Your task to perform on an android device: Show me popular games on the Play Store Image 0: 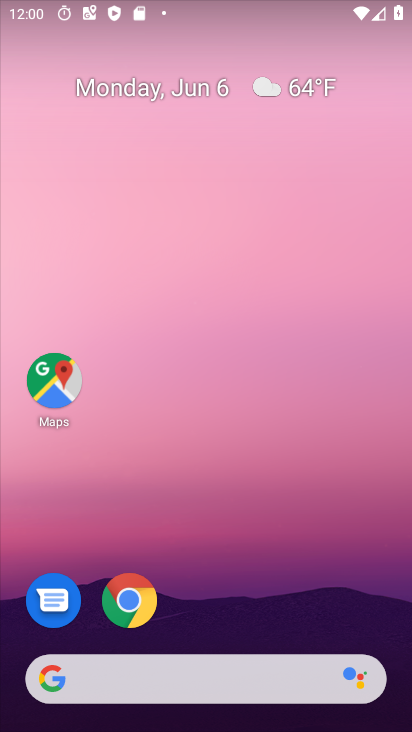
Step 0: drag from (259, 718) to (189, 196)
Your task to perform on an android device: Show me popular games on the Play Store Image 1: 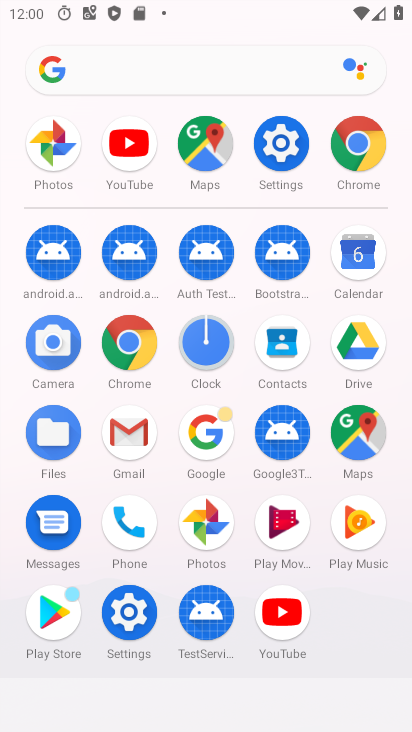
Step 1: click (60, 607)
Your task to perform on an android device: Show me popular games on the Play Store Image 2: 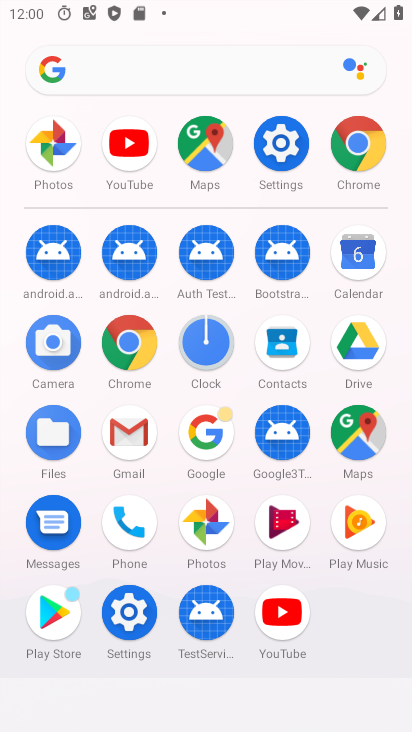
Step 2: click (60, 605)
Your task to perform on an android device: Show me popular games on the Play Store Image 3: 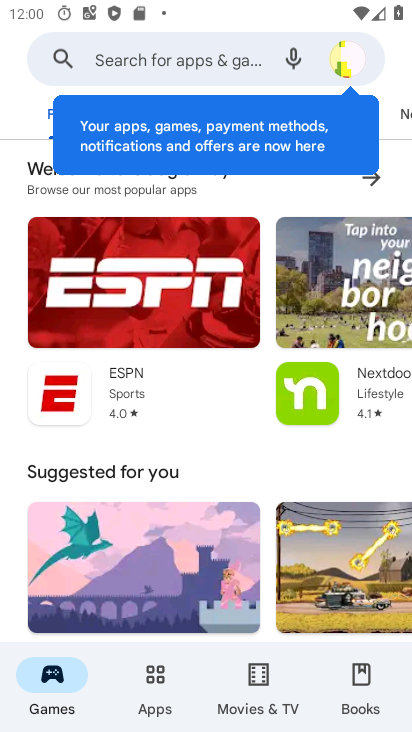
Step 3: press back button
Your task to perform on an android device: Show me popular games on the Play Store Image 4: 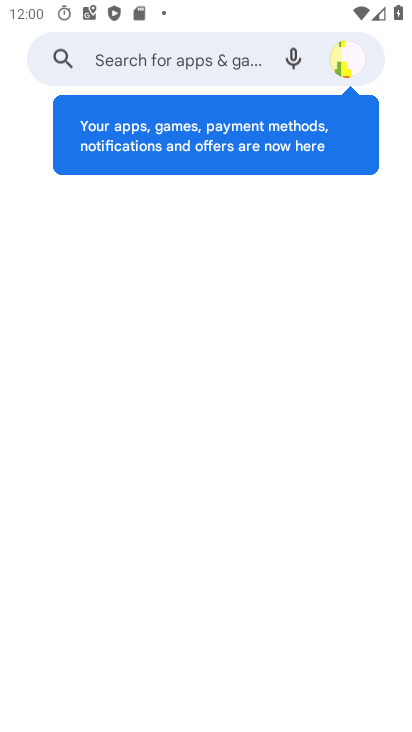
Step 4: press back button
Your task to perform on an android device: Show me popular games on the Play Store Image 5: 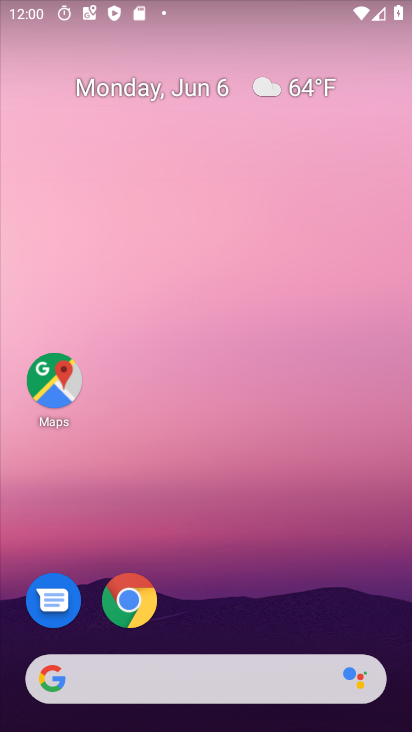
Step 5: drag from (211, 682) to (165, 196)
Your task to perform on an android device: Show me popular games on the Play Store Image 6: 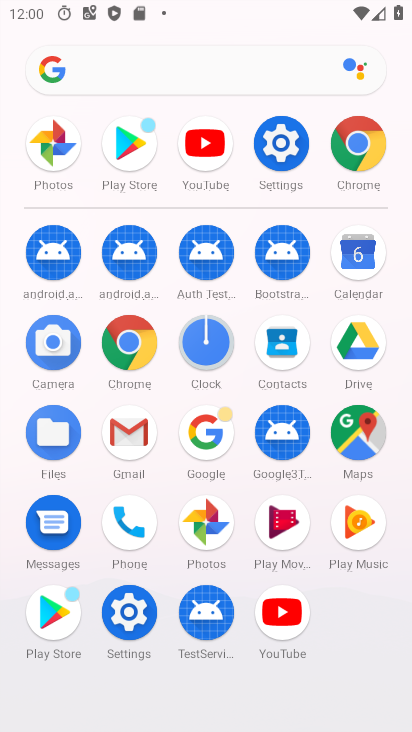
Step 6: click (232, 225)
Your task to perform on an android device: Show me popular games on the Play Store Image 7: 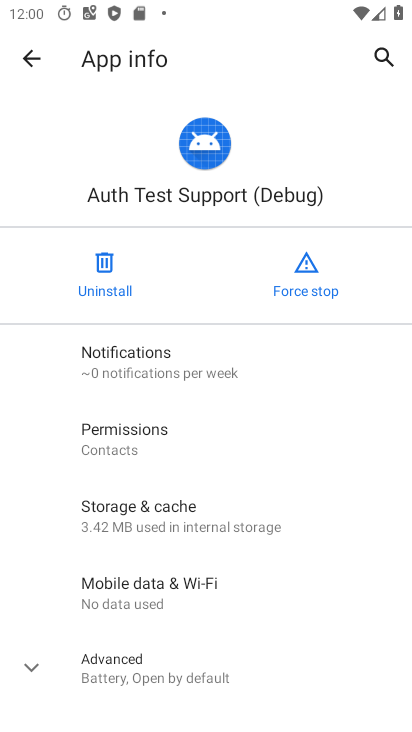
Step 7: click (26, 51)
Your task to perform on an android device: Show me popular games on the Play Store Image 8: 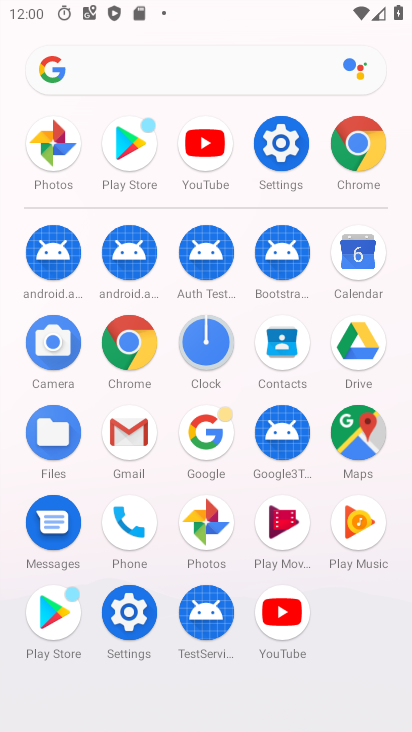
Step 8: click (47, 601)
Your task to perform on an android device: Show me popular games on the Play Store Image 9: 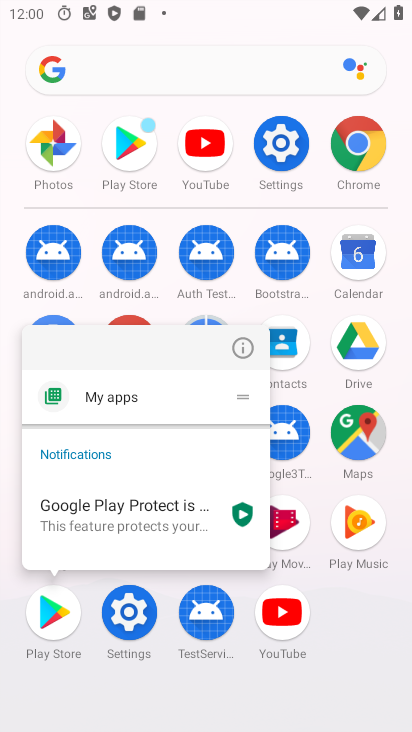
Step 9: click (44, 625)
Your task to perform on an android device: Show me popular games on the Play Store Image 10: 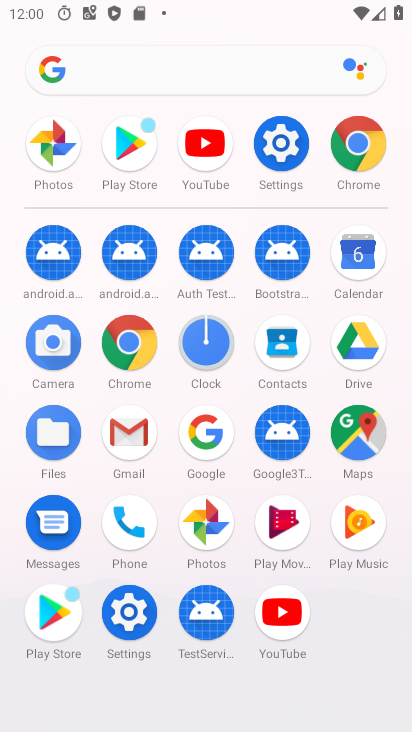
Step 10: click (48, 611)
Your task to perform on an android device: Show me popular games on the Play Store Image 11: 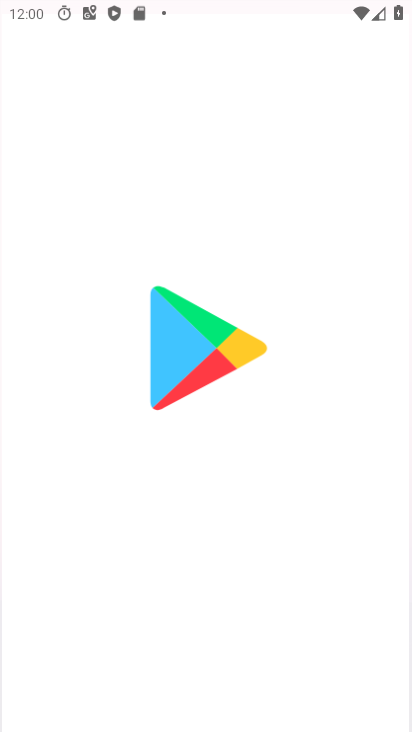
Step 11: click (48, 610)
Your task to perform on an android device: Show me popular games on the Play Store Image 12: 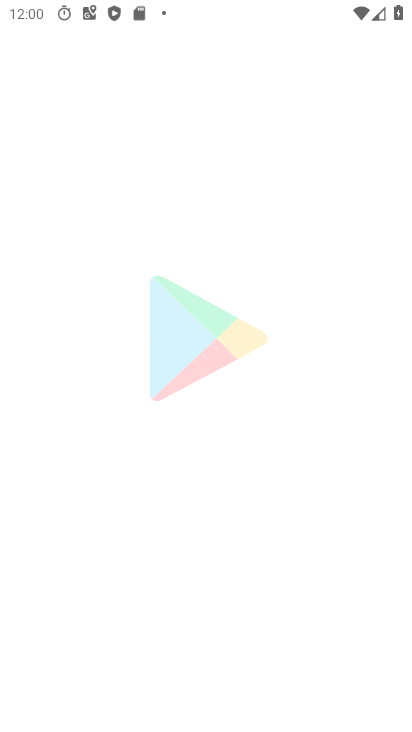
Step 12: click (44, 608)
Your task to perform on an android device: Show me popular games on the Play Store Image 13: 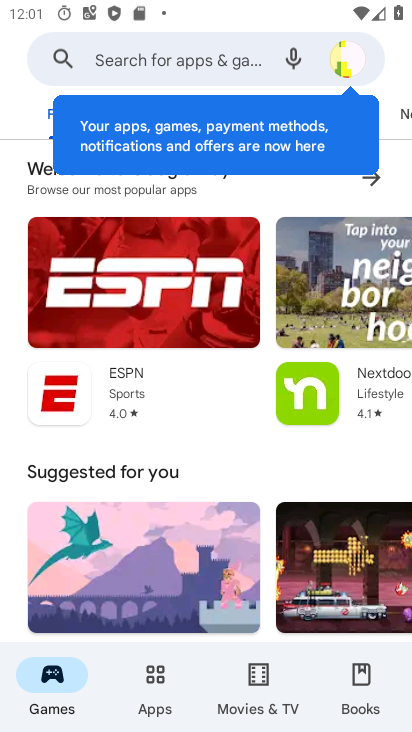
Step 13: click (98, 52)
Your task to perform on an android device: Show me popular games on the Play Store Image 14: 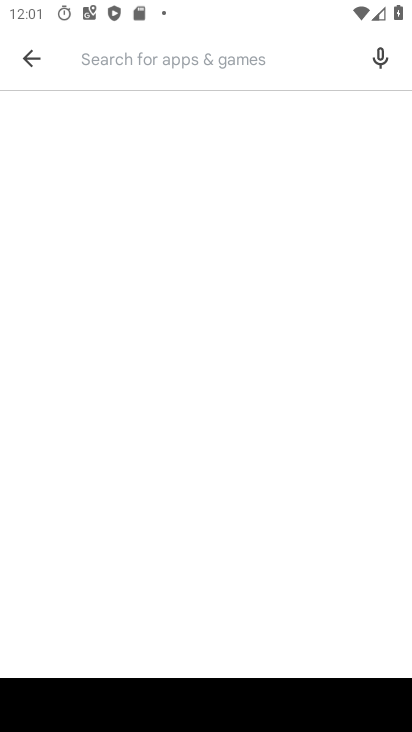
Step 14: type "popular games"
Your task to perform on an android device: Show me popular games on the Play Store Image 15: 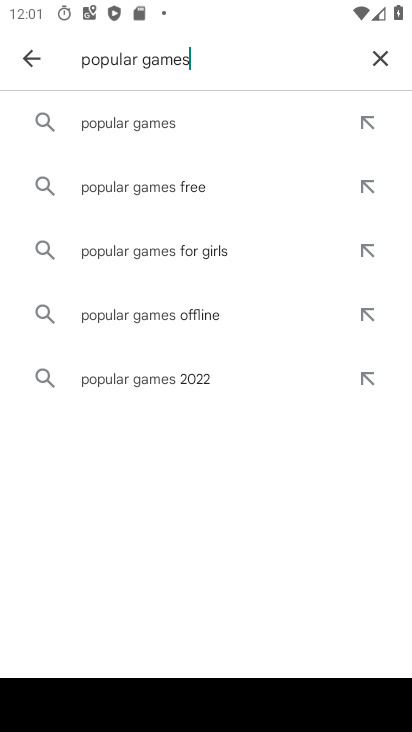
Step 15: click (138, 110)
Your task to perform on an android device: Show me popular games on the Play Store Image 16: 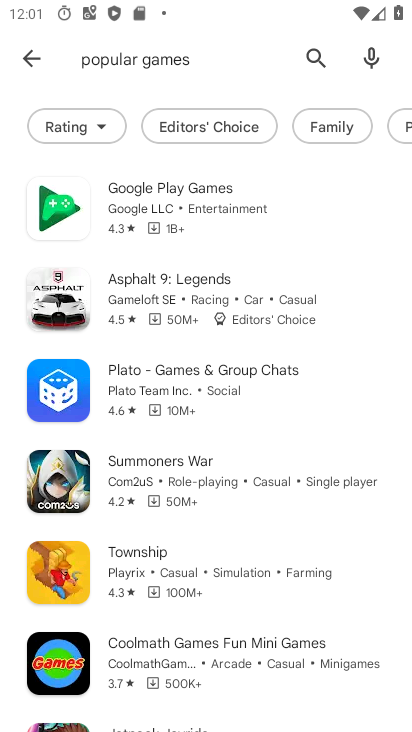
Step 16: drag from (210, 346) to (222, 133)
Your task to perform on an android device: Show me popular games on the Play Store Image 17: 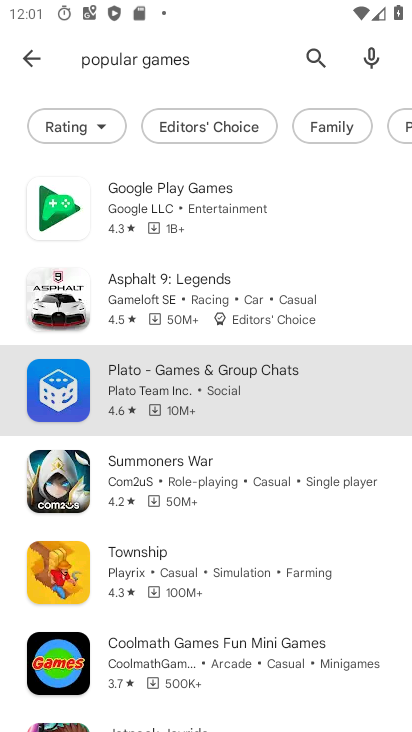
Step 17: drag from (238, 436) to (153, 110)
Your task to perform on an android device: Show me popular games on the Play Store Image 18: 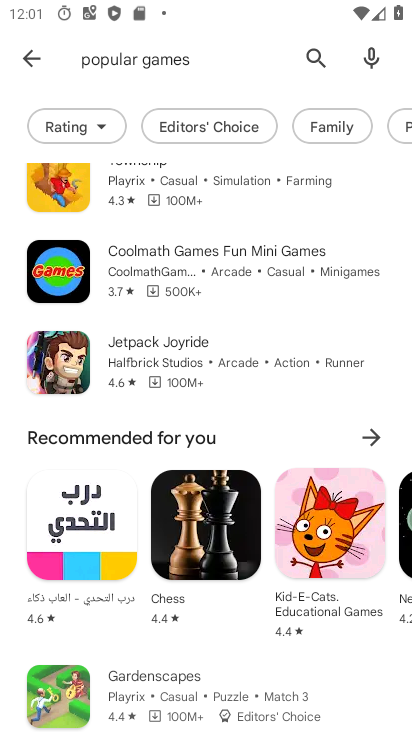
Step 18: drag from (159, 414) to (134, 208)
Your task to perform on an android device: Show me popular games on the Play Store Image 19: 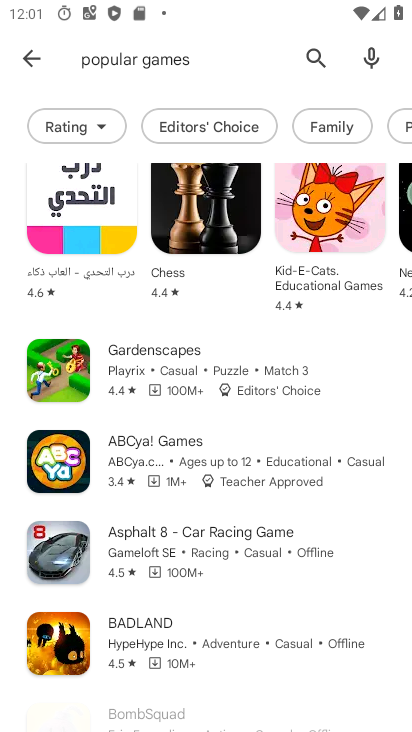
Step 19: click (198, 224)
Your task to perform on an android device: Show me popular games on the Play Store Image 20: 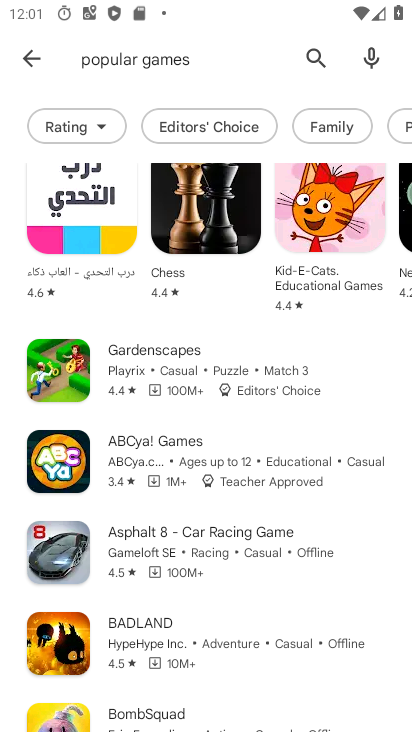
Step 20: task complete